Your task to perform on an android device: change timer sound Image 0: 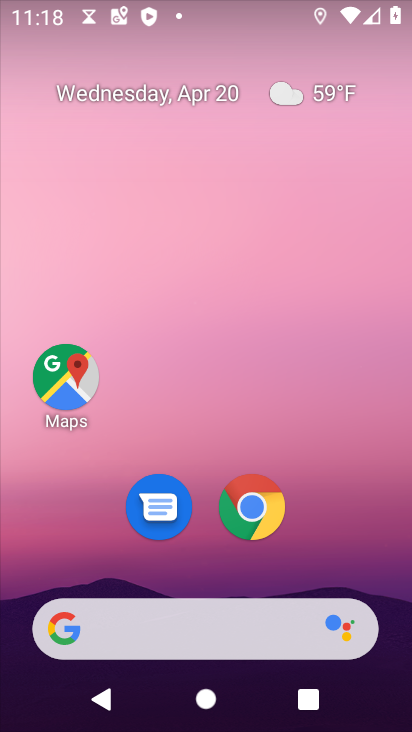
Step 0: drag from (264, 673) to (160, 279)
Your task to perform on an android device: change timer sound Image 1: 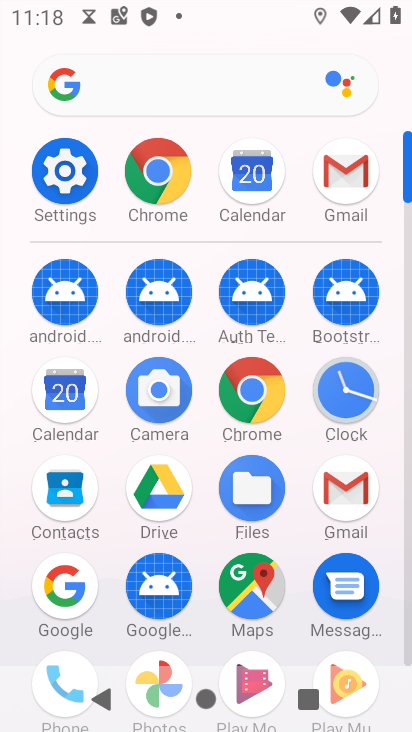
Step 1: click (352, 397)
Your task to perform on an android device: change timer sound Image 2: 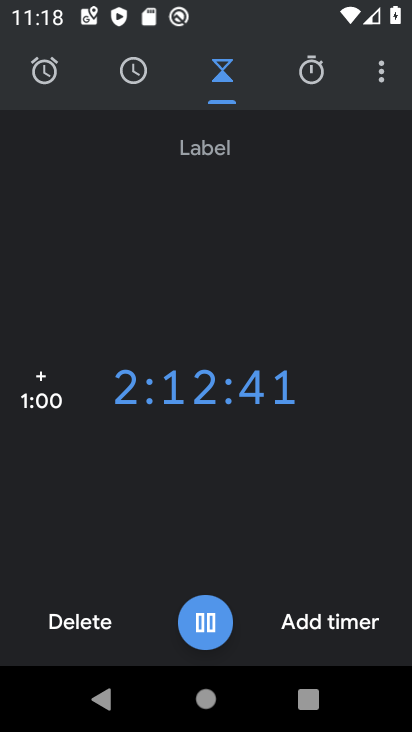
Step 2: click (370, 79)
Your task to perform on an android device: change timer sound Image 3: 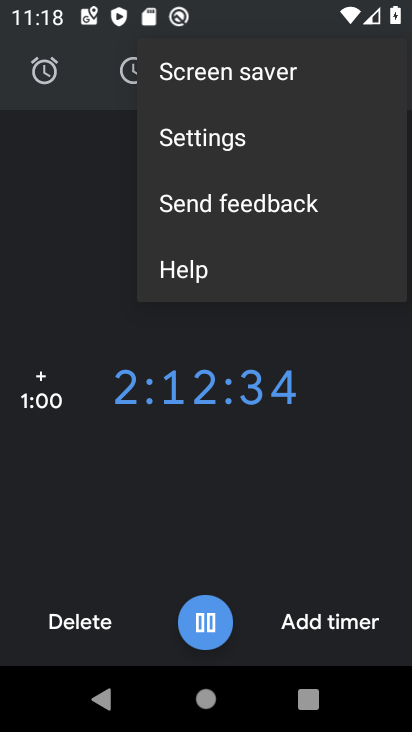
Step 3: click (215, 146)
Your task to perform on an android device: change timer sound Image 4: 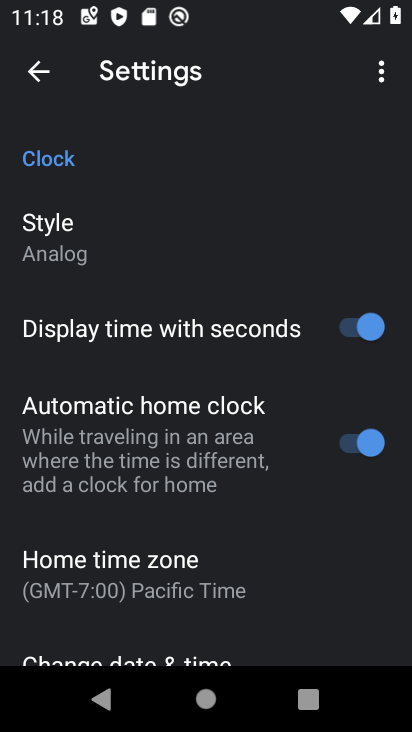
Step 4: drag from (188, 484) to (223, 296)
Your task to perform on an android device: change timer sound Image 5: 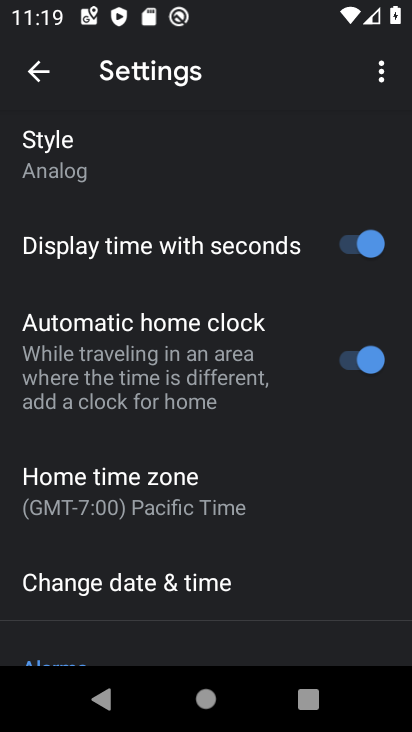
Step 5: drag from (228, 549) to (139, 322)
Your task to perform on an android device: change timer sound Image 6: 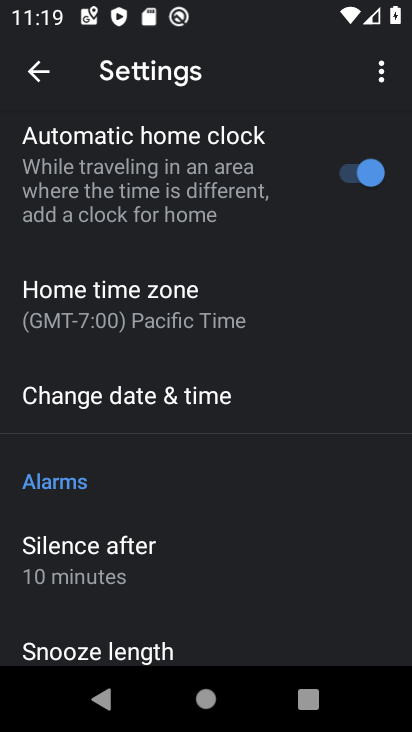
Step 6: drag from (183, 508) to (227, 292)
Your task to perform on an android device: change timer sound Image 7: 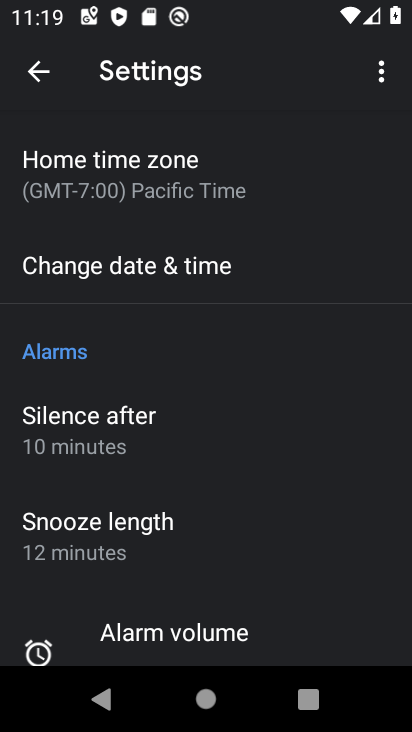
Step 7: drag from (189, 491) to (229, 159)
Your task to perform on an android device: change timer sound Image 8: 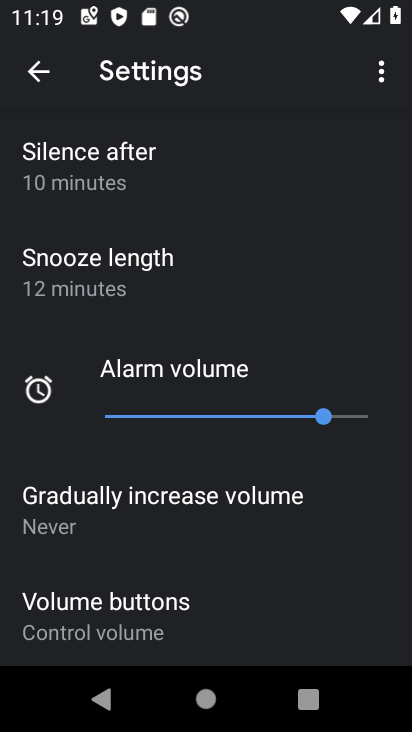
Step 8: drag from (200, 516) to (228, 304)
Your task to perform on an android device: change timer sound Image 9: 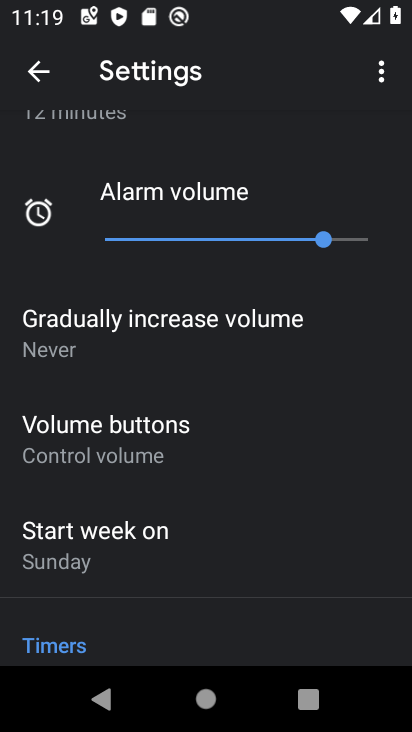
Step 9: drag from (178, 554) to (194, 332)
Your task to perform on an android device: change timer sound Image 10: 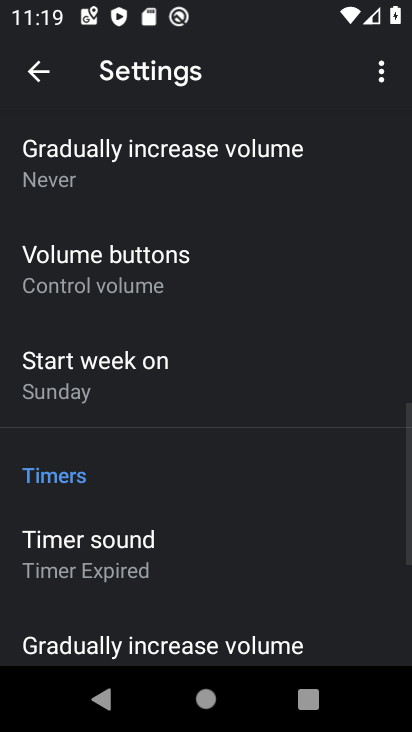
Step 10: click (130, 547)
Your task to perform on an android device: change timer sound Image 11: 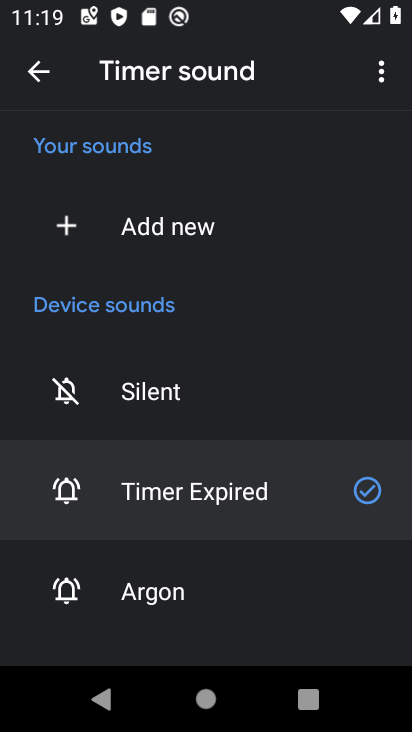
Step 11: click (137, 626)
Your task to perform on an android device: change timer sound Image 12: 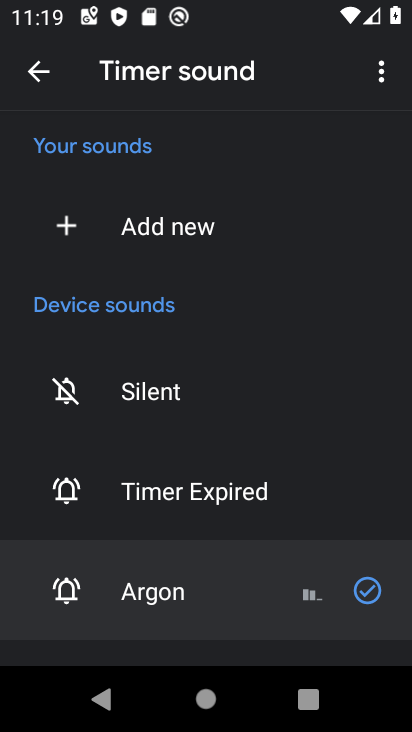
Step 12: task complete